Your task to perform on an android device: Open Google Maps and go to "Timeline" Image 0: 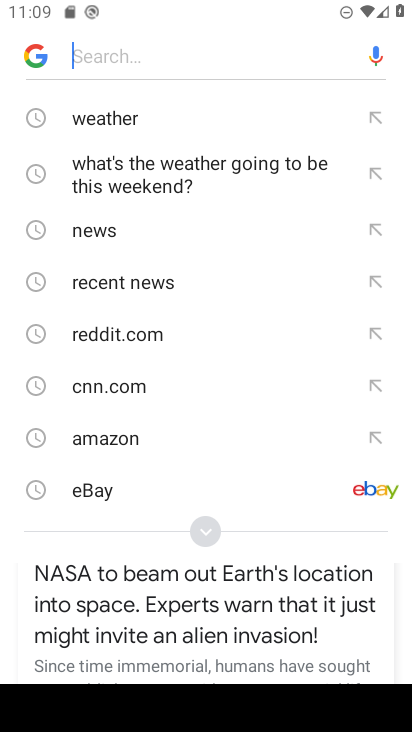
Step 0: press home button
Your task to perform on an android device: Open Google Maps and go to "Timeline" Image 1: 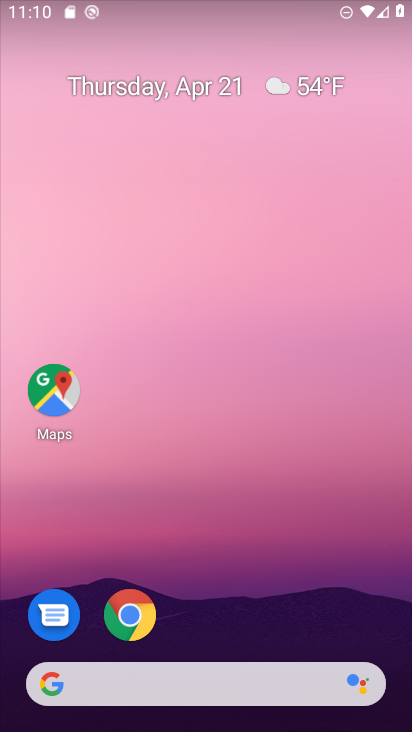
Step 1: drag from (296, 639) to (286, 224)
Your task to perform on an android device: Open Google Maps and go to "Timeline" Image 2: 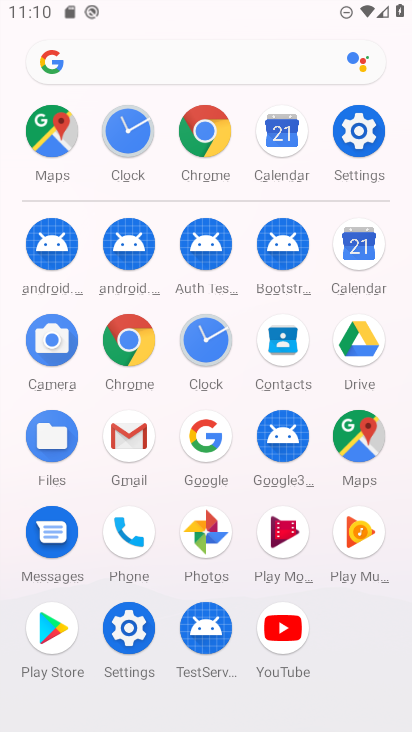
Step 2: click (362, 435)
Your task to perform on an android device: Open Google Maps and go to "Timeline" Image 3: 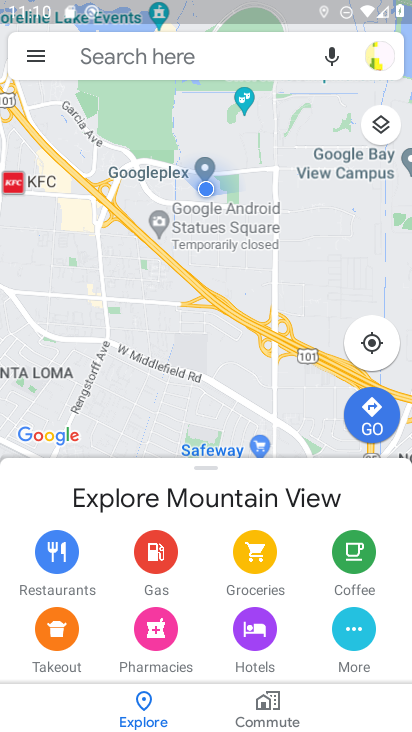
Step 3: click (40, 58)
Your task to perform on an android device: Open Google Maps and go to "Timeline" Image 4: 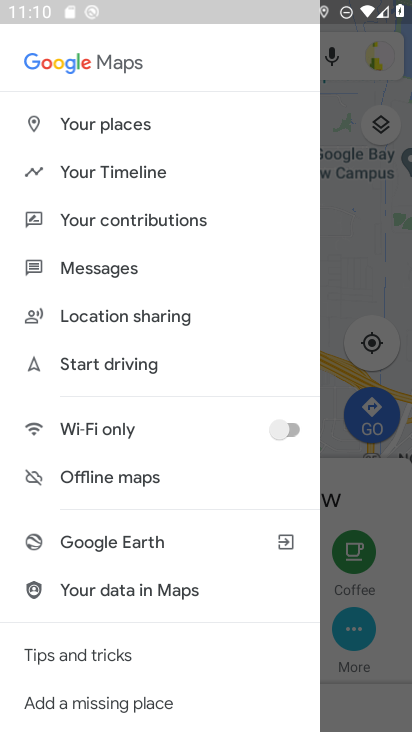
Step 4: click (64, 163)
Your task to perform on an android device: Open Google Maps and go to "Timeline" Image 5: 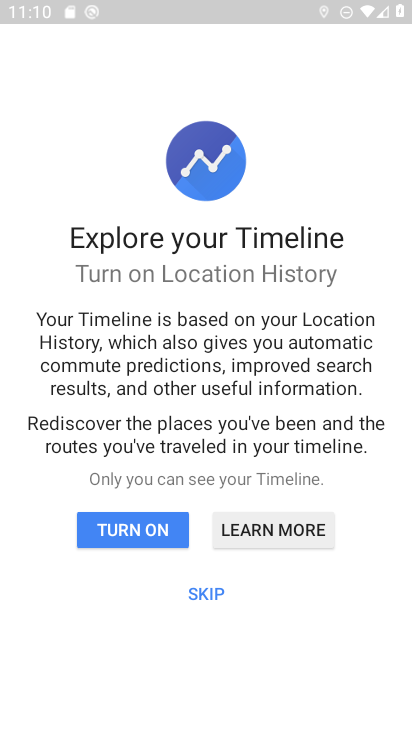
Step 5: click (221, 587)
Your task to perform on an android device: Open Google Maps and go to "Timeline" Image 6: 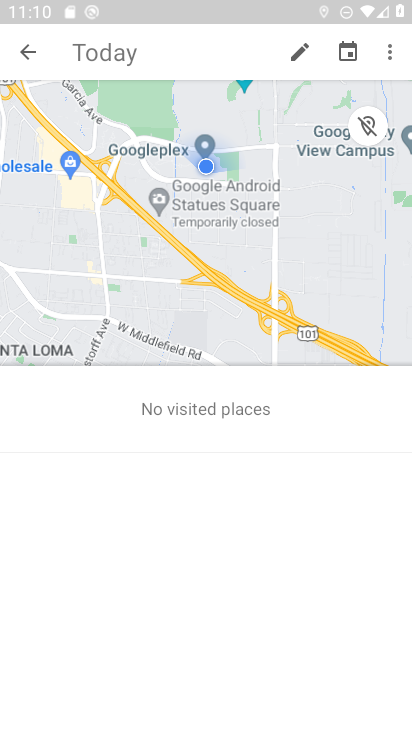
Step 6: task complete